Your task to perform on an android device: change the clock display to show seconds Image 0: 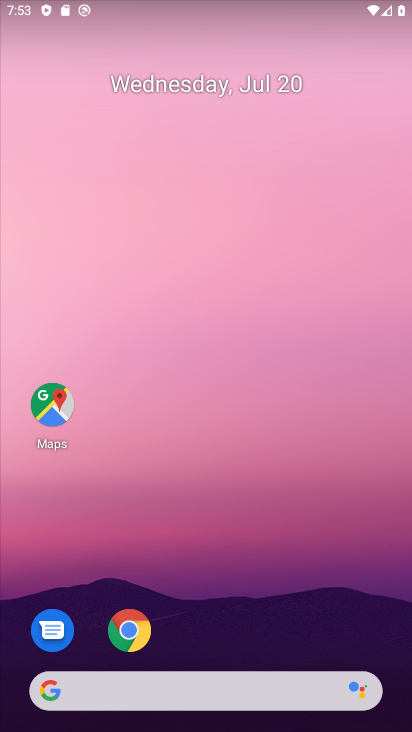
Step 0: drag from (399, 701) to (387, 54)
Your task to perform on an android device: change the clock display to show seconds Image 1: 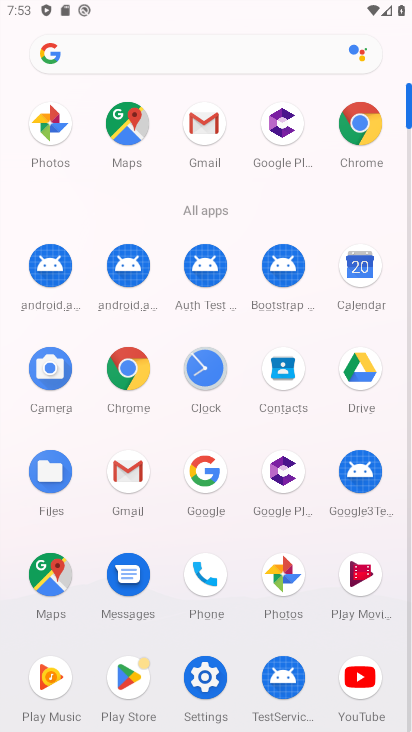
Step 1: click (207, 674)
Your task to perform on an android device: change the clock display to show seconds Image 2: 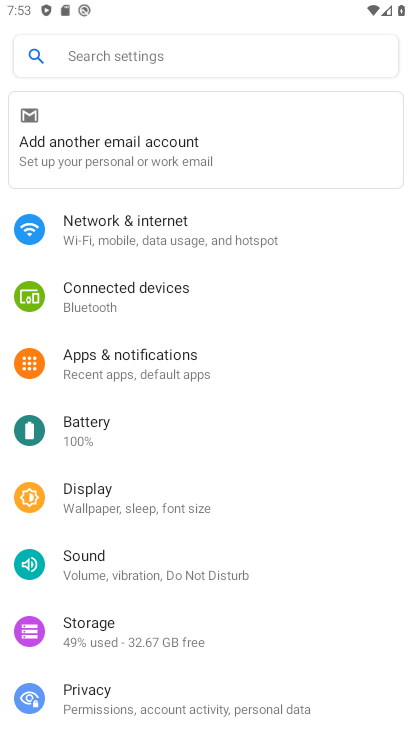
Step 2: press home button
Your task to perform on an android device: change the clock display to show seconds Image 3: 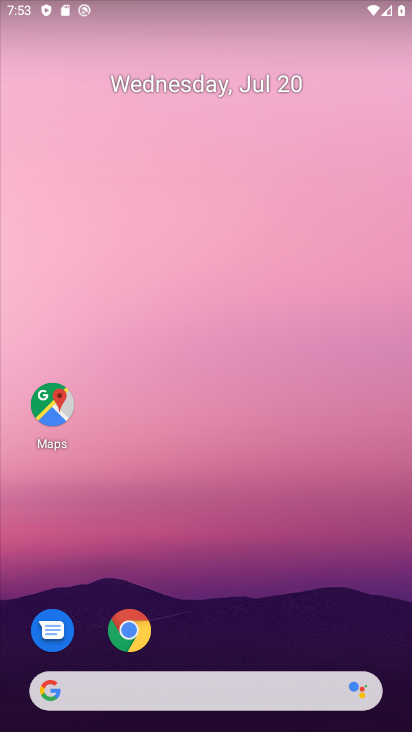
Step 3: drag from (402, 696) to (301, 126)
Your task to perform on an android device: change the clock display to show seconds Image 4: 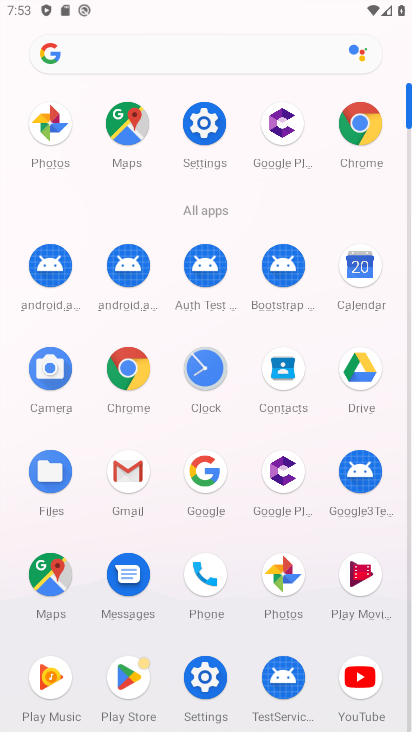
Step 4: click (209, 368)
Your task to perform on an android device: change the clock display to show seconds Image 5: 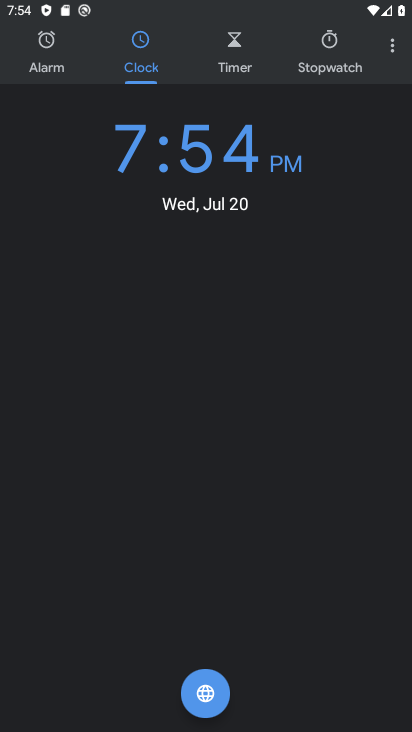
Step 5: click (390, 42)
Your task to perform on an android device: change the clock display to show seconds Image 6: 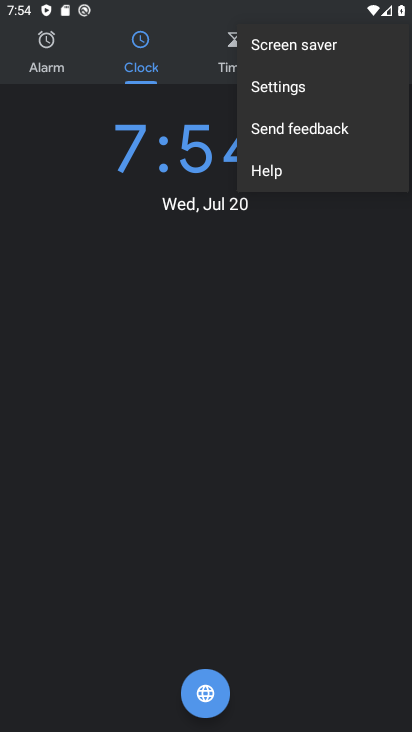
Step 6: click (292, 86)
Your task to perform on an android device: change the clock display to show seconds Image 7: 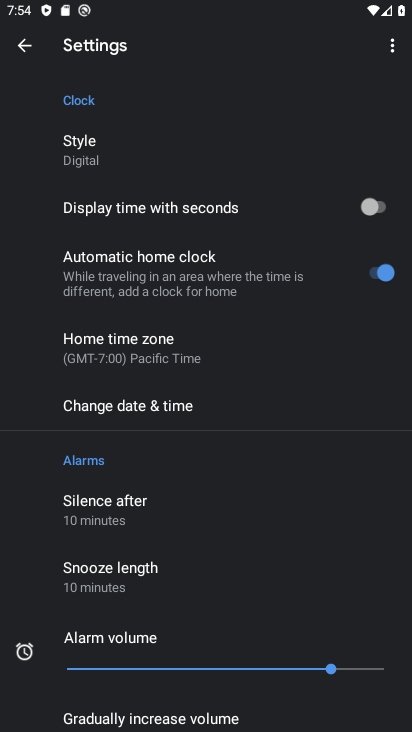
Step 7: click (373, 203)
Your task to perform on an android device: change the clock display to show seconds Image 8: 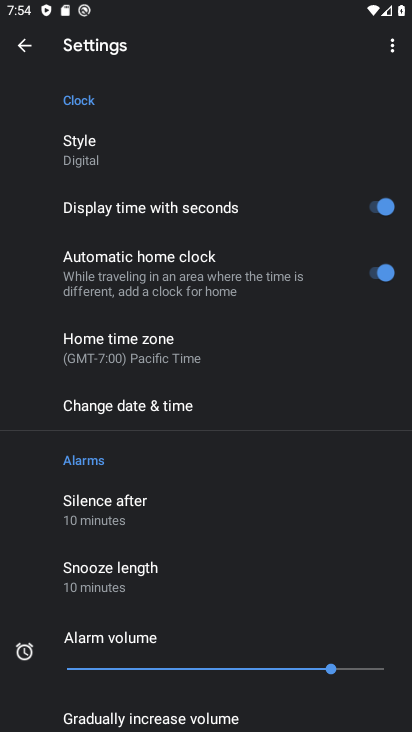
Step 8: task complete